Your task to perform on an android device: Open Google Maps and go to "Timeline" Image 0: 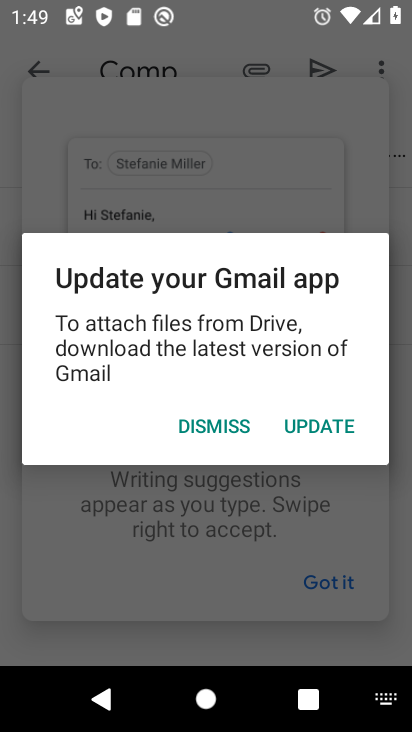
Step 0: press home button
Your task to perform on an android device: Open Google Maps and go to "Timeline" Image 1: 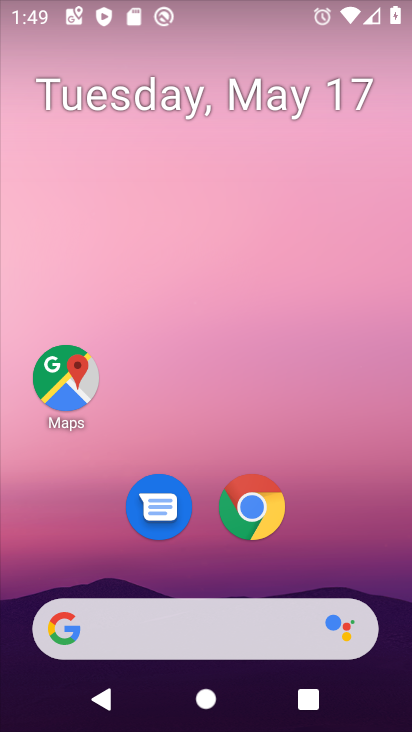
Step 1: click (48, 367)
Your task to perform on an android device: Open Google Maps and go to "Timeline" Image 2: 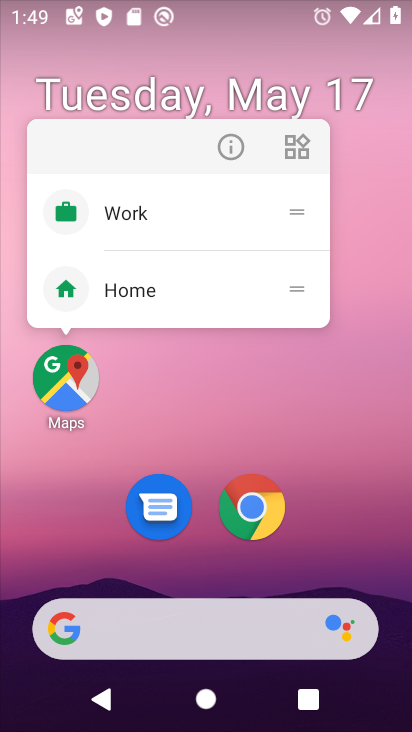
Step 2: click (59, 372)
Your task to perform on an android device: Open Google Maps and go to "Timeline" Image 3: 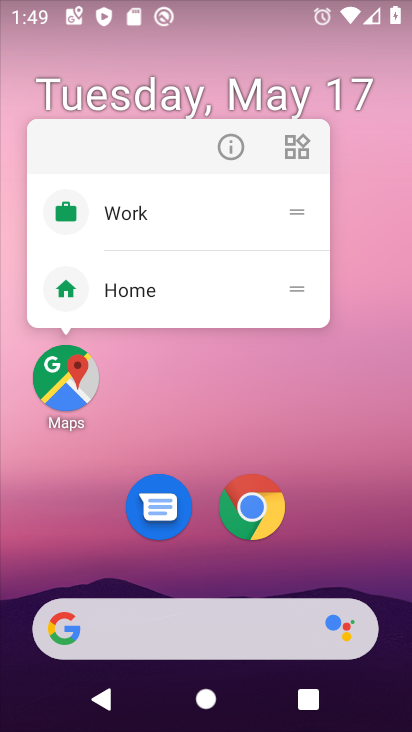
Step 3: click (59, 372)
Your task to perform on an android device: Open Google Maps and go to "Timeline" Image 4: 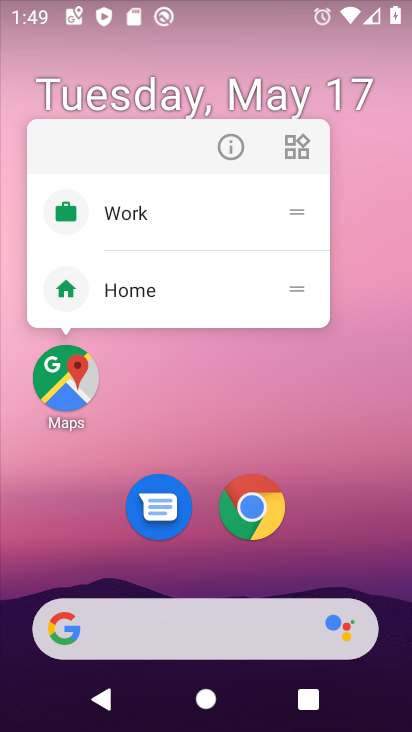
Step 4: click (59, 372)
Your task to perform on an android device: Open Google Maps and go to "Timeline" Image 5: 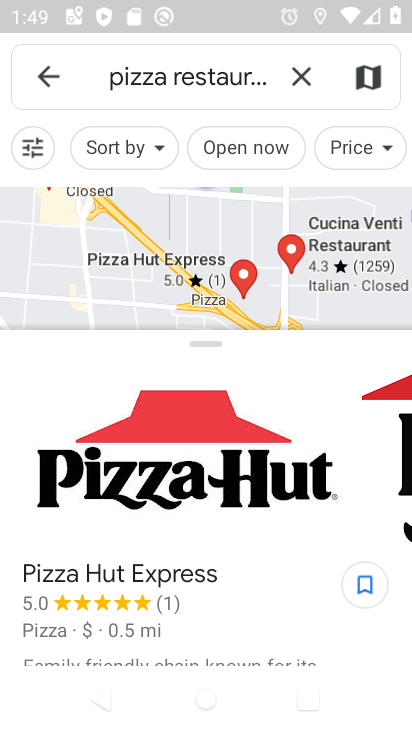
Step 5: click (297, 80)
Your task to perform on an android device: Open Google Maps and go to "Timeline" Image 6: 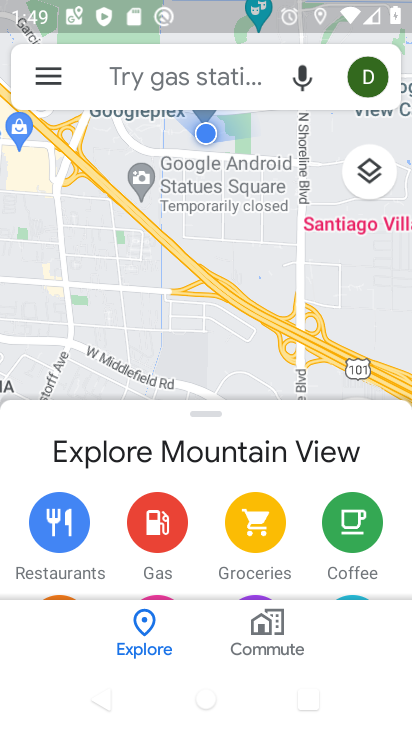
Step 6: click (33, 65)
Your task to perform on an android device: Open Google Maps and go to "Timeline" Image 7: 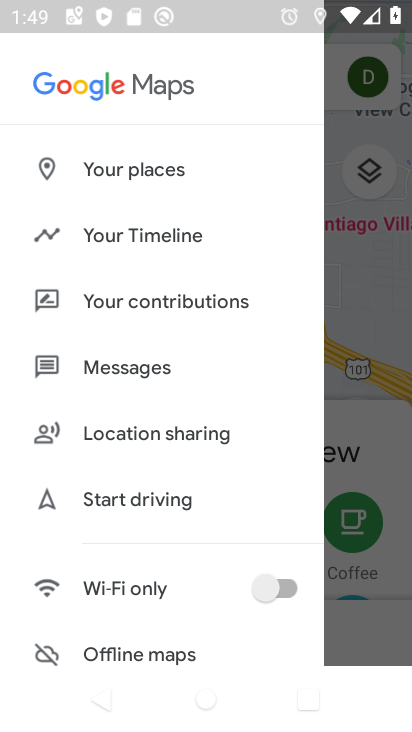
Step 7: click (163, 249)
Your task to perform on an android device: Open Google Maps and go to "Timeline" Image 8: 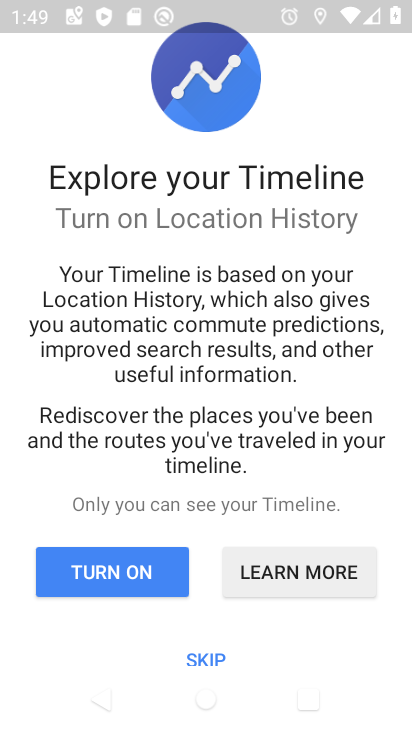
Step 8: task complete